Your task to perform on an android device: delete the emails in spam in the gmail app Image 0: 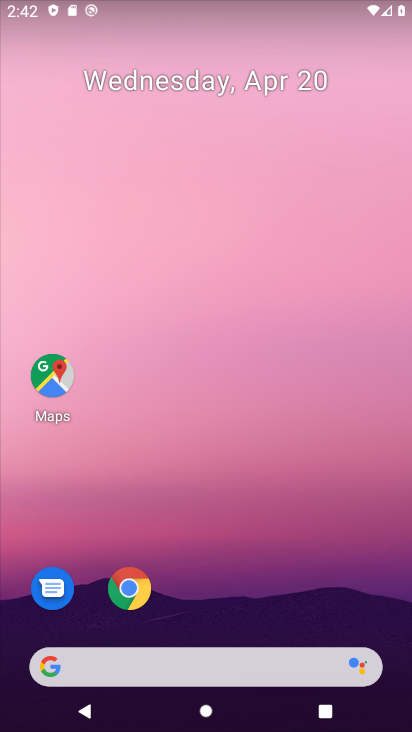
Step 0: drag from (212, 551) to (155, 80)
Your task to perform on an android device: delete the emails in spam in the gmail app Image 1: 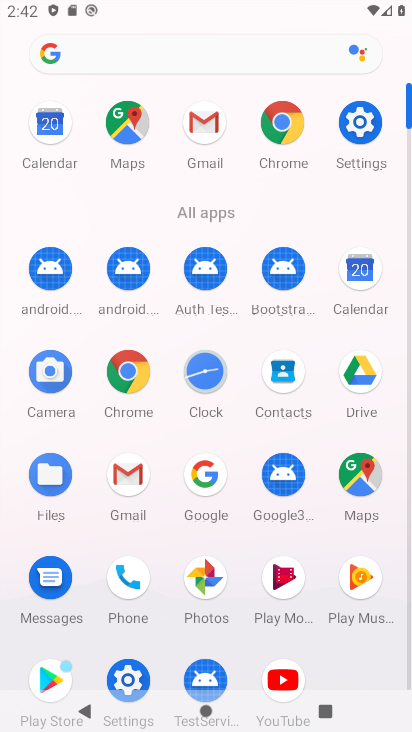
Step 1: click (211, 133)
Your task to perform on an android device: delete the emails in spam in the gmail app Image 2: 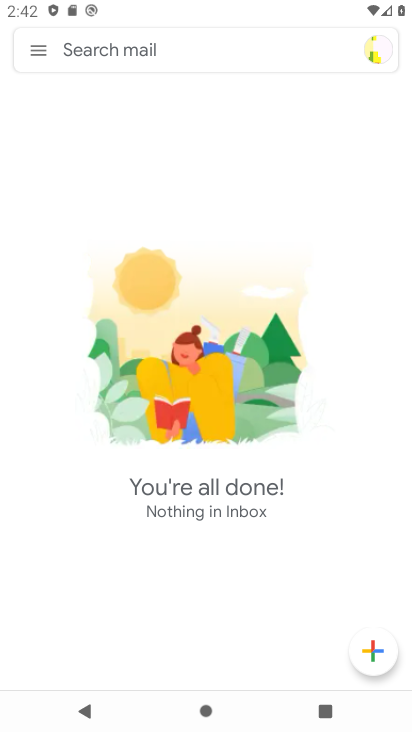
Step 2: click (43, 55)
Your task to perform on an android device: delete the emails in spam in the gmail app Image 3: 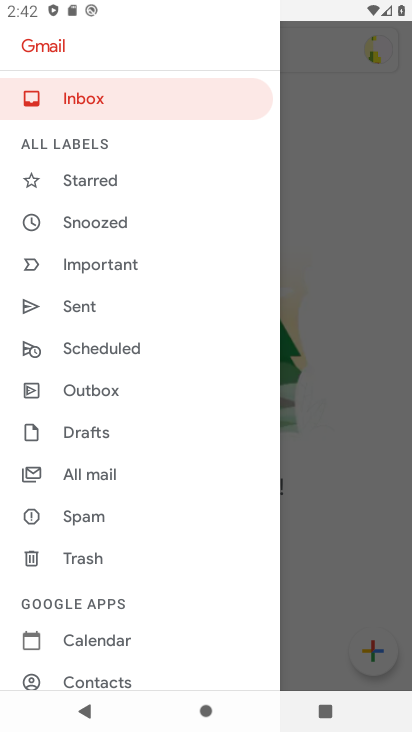
Step 3: click (117, 480)
Your task to perform on an android device: delete the emails in spam in the gmail app Image 4: 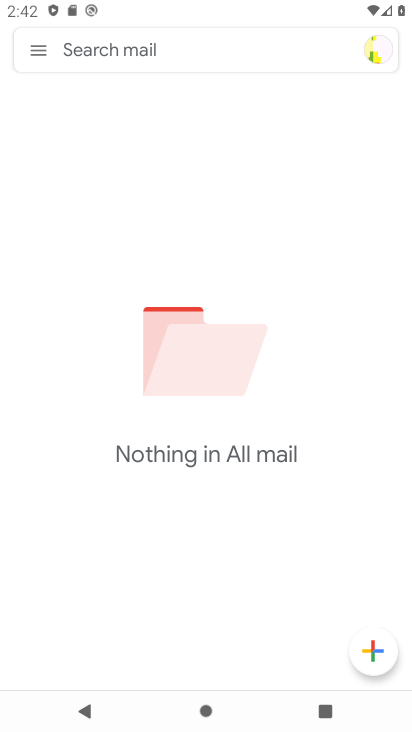
Step 4: task complete